Your task to perform on an android device: turn on bluetooth scan Image 0: 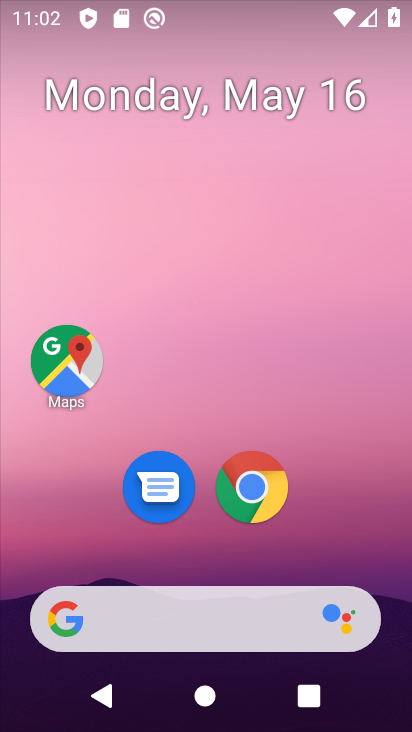
Step 0: drag from (43, 470) to (191, 152)
Your task to perform on an android device: turn on bluetooth scan Image 1: 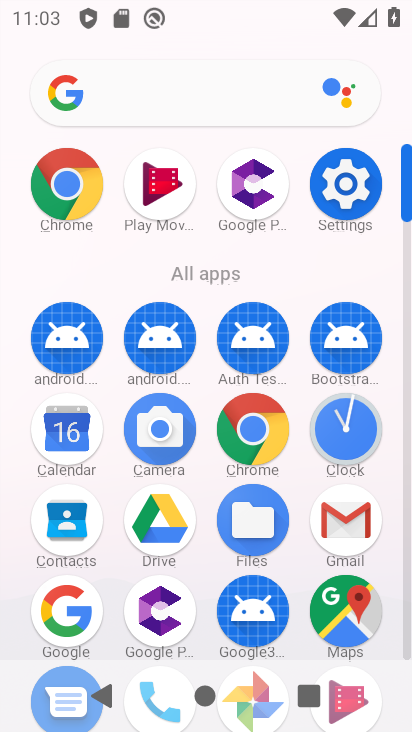
Step 1: click (350, 192)
Your task to perform on an android device: turn on bluetooth scan Image 2: 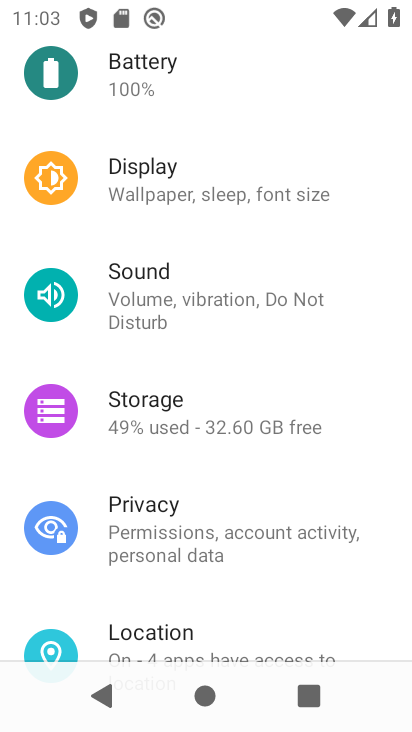
Step 2: click (139, 635)
Your task to perform on an android device: turn on bluetooth scan Image 3: 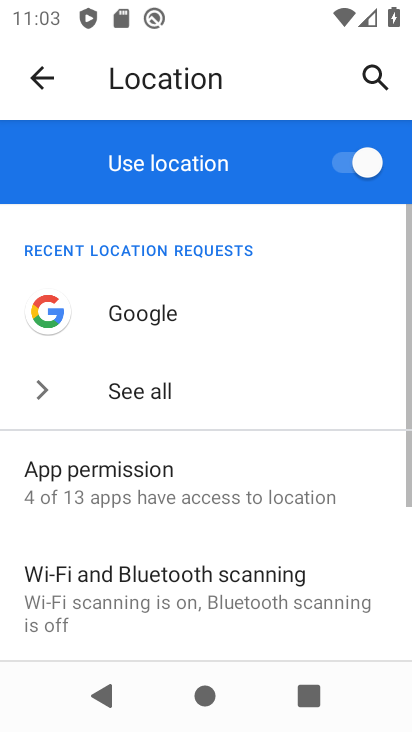
Step 3: click (169, 606)
Your task to perform on an android device: turn on bluetooth scan Image 4: 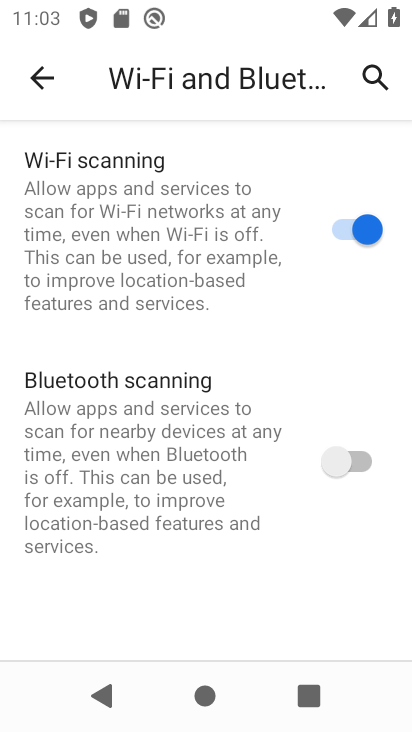
Step 4: click (358, 465)
Your task to perform on an android device: turn on bluetooth scan Image 5: 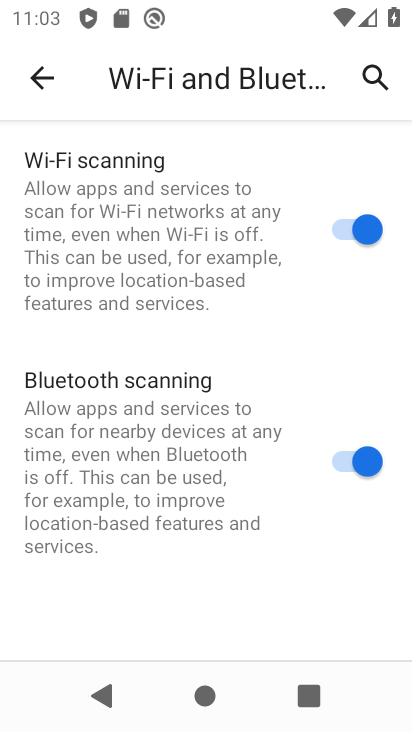
Step 5: task complete